Your task to perform on an android device: delete browsing data in the chrome app Image 0: 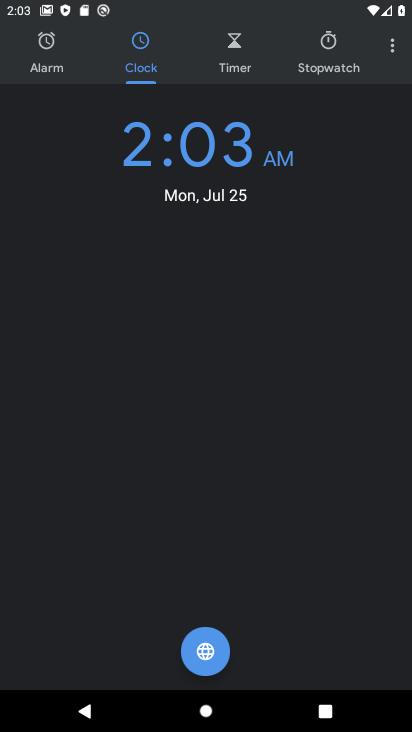
Step 0: press home button
Your task to perform on an android device: delete browsing data in the chrome app Image 1: 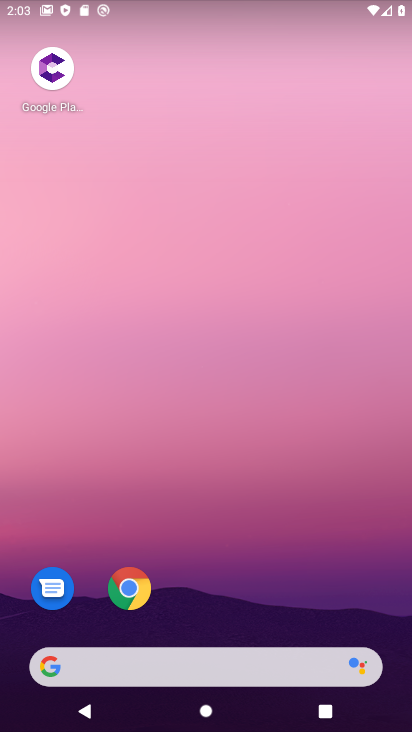
Step 1: drag from (210, 597) to (185, 282)
Your task to perform on an android device: delete browsing data in the chrome app Image 2: 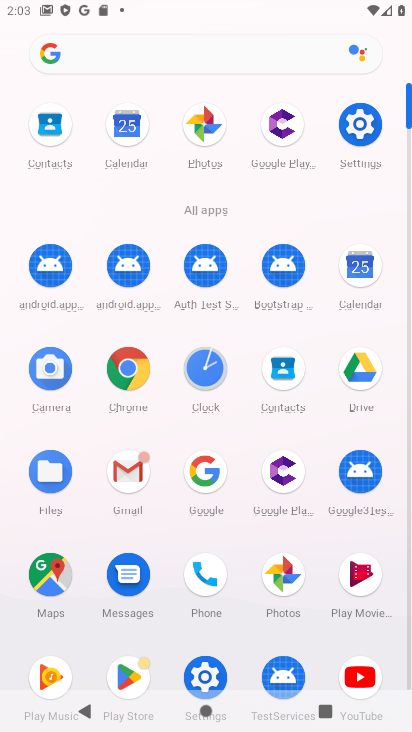
Step 2: click (120, 382)
Your task to perform on an android device: delete browsing data in the chrome app Image 3: 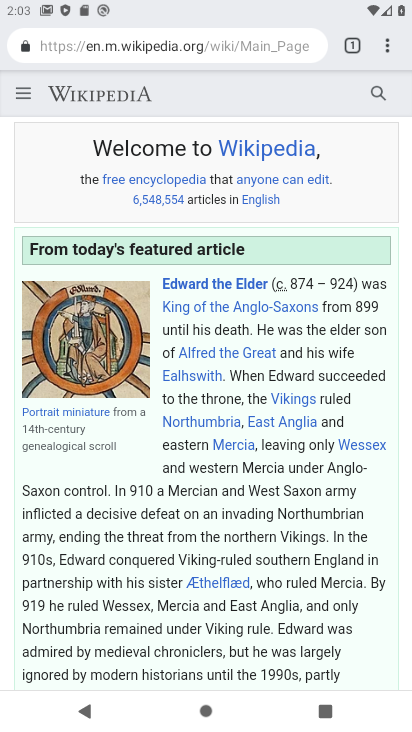
Step 3: click (384, 43)
Your task to perform on an android device: delete browsing data in the chrome app Image 4: 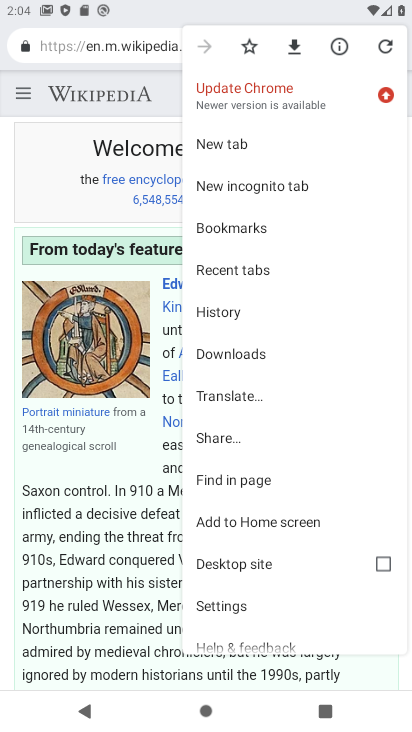
Step 4: click (229, 318)
Your task to perform on an android device: delete browsing data in the chrome app Image 5: 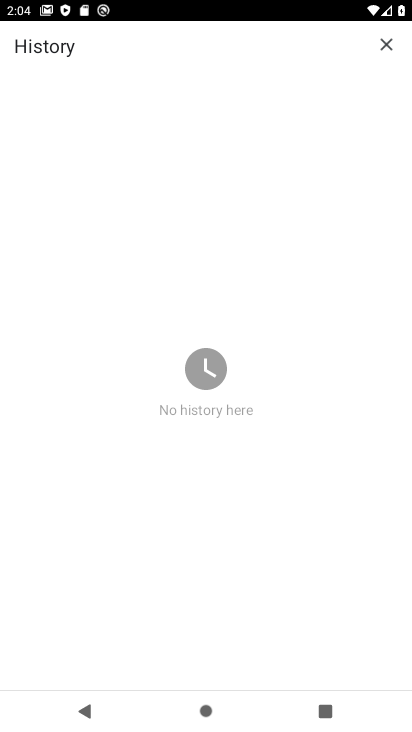
Step 5: task complete